Your task to perform on an android device: Go to Reddit.com Image 0: 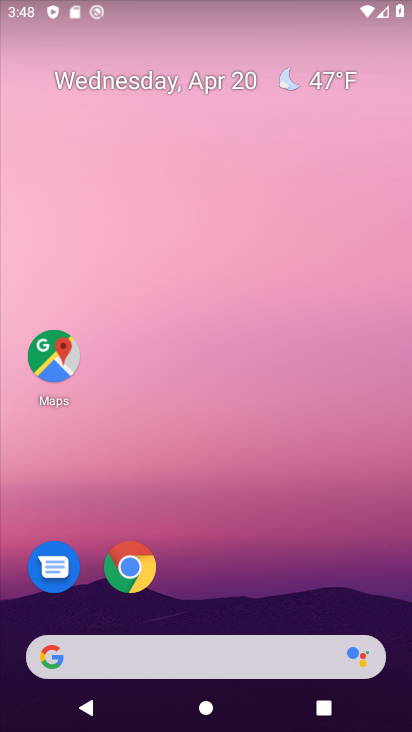
Step 0: click (134, 554)
Your task to perform on an android device: Go to Reddit.com Image 1: 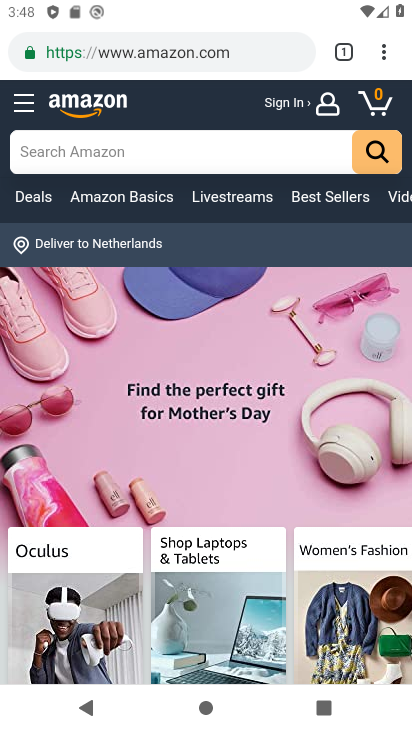
Step 1: press home button
Your task to perform on an android device: Go to Reddit.com Image 2: 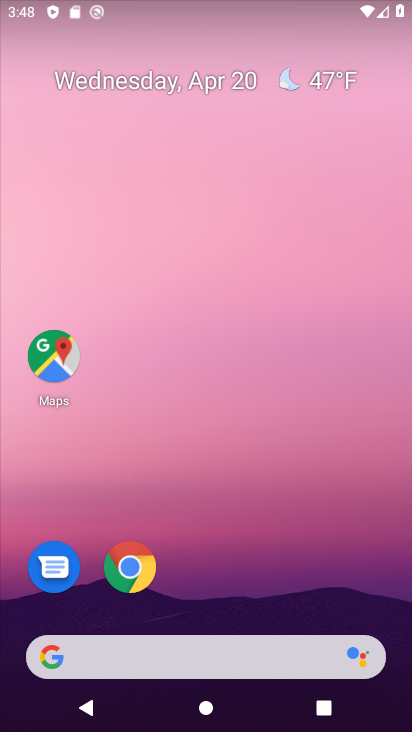
Step 2: click (184, 651)
Your task to perform on an android device: Go to Reddit.com Image 3: 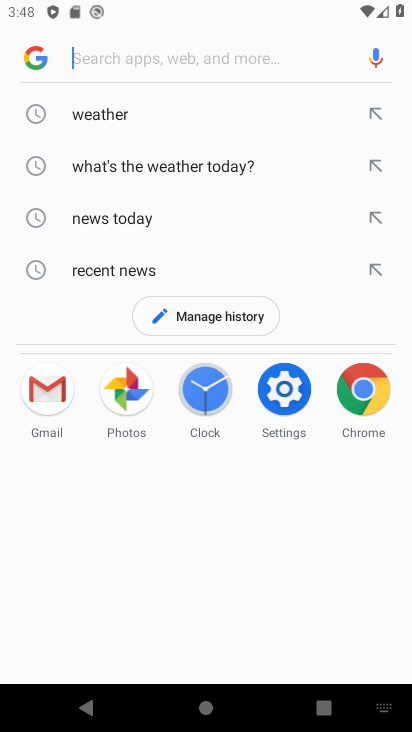
Step 3: type "reddit.com"
Your task to perform on an android device: Go to Reddit.com Image 4: 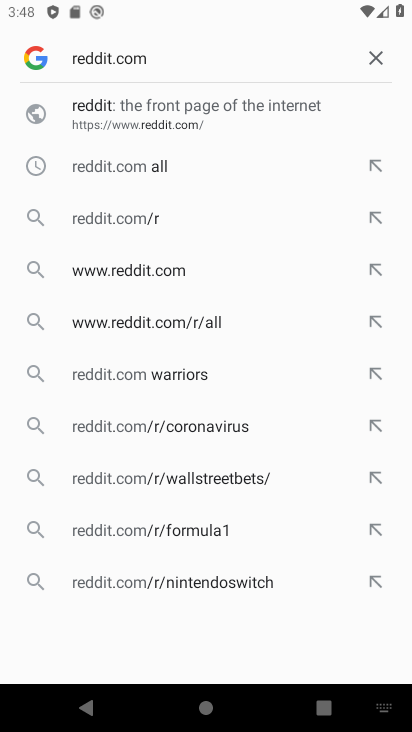
Step 4: click (141, 120)
Your task to perform on an android device: Go to Reddit.com Image 5: 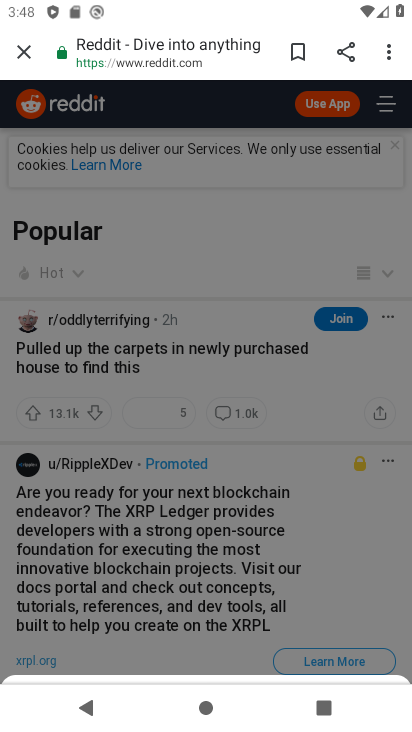
Step 5: task complete